Your task to perform on an android device: choose inbox layout in the gmail app Image 0: 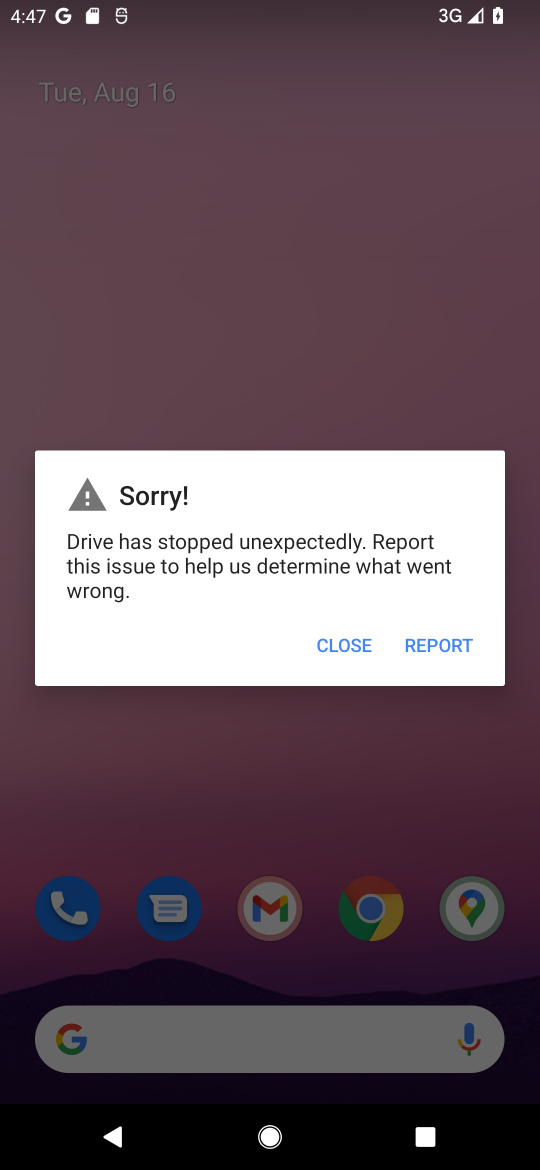
Step 0: click (350, 635)
Your task to perform on an android device: choose inbox layout in the gmail app Image 1: 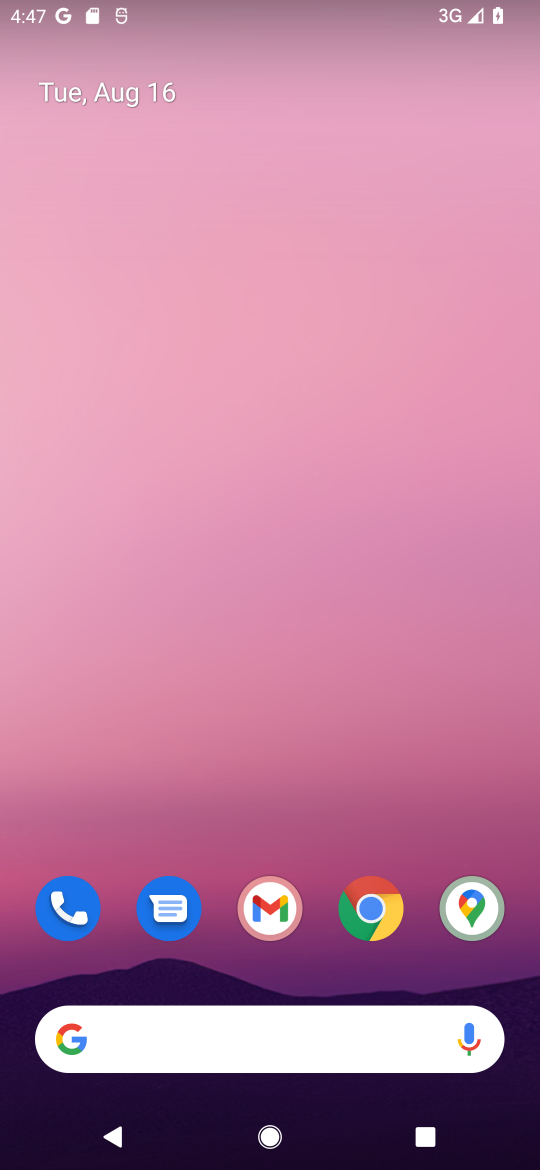
Step 1: click (272, 913)
Your task to perform on an android device: choose inbox layout in the gmail app Image 2: 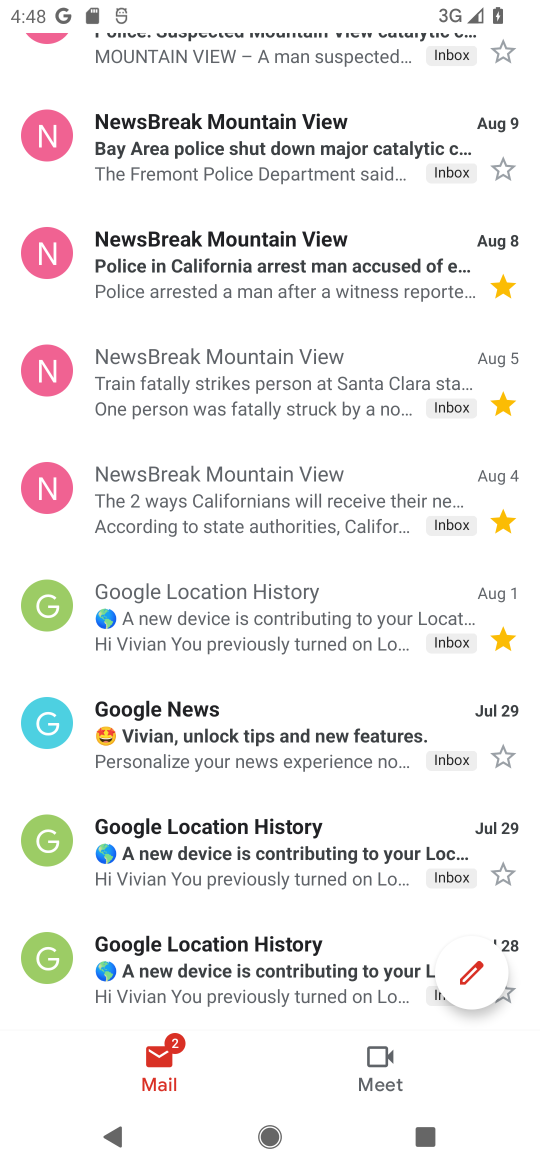
Step 2: drag from (184, 217) to (249, 975)
Your task to perform on an android device: choose inbox layout in the gmail app Image 3: 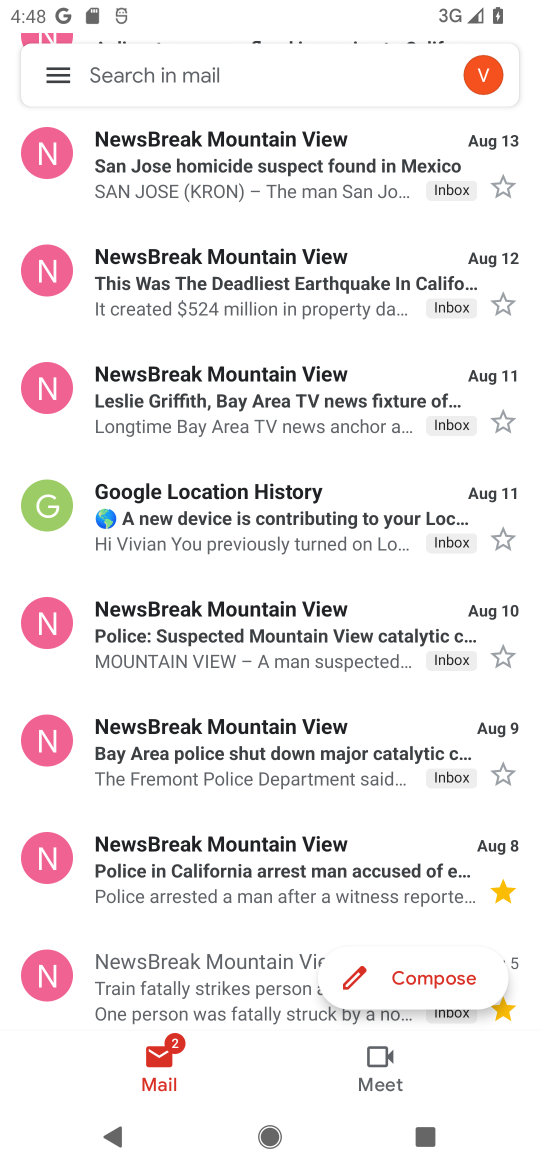
Step 3: click (53, 79)
Your task to perform on an android device: choose inbox layout in the gmail app Image 4: 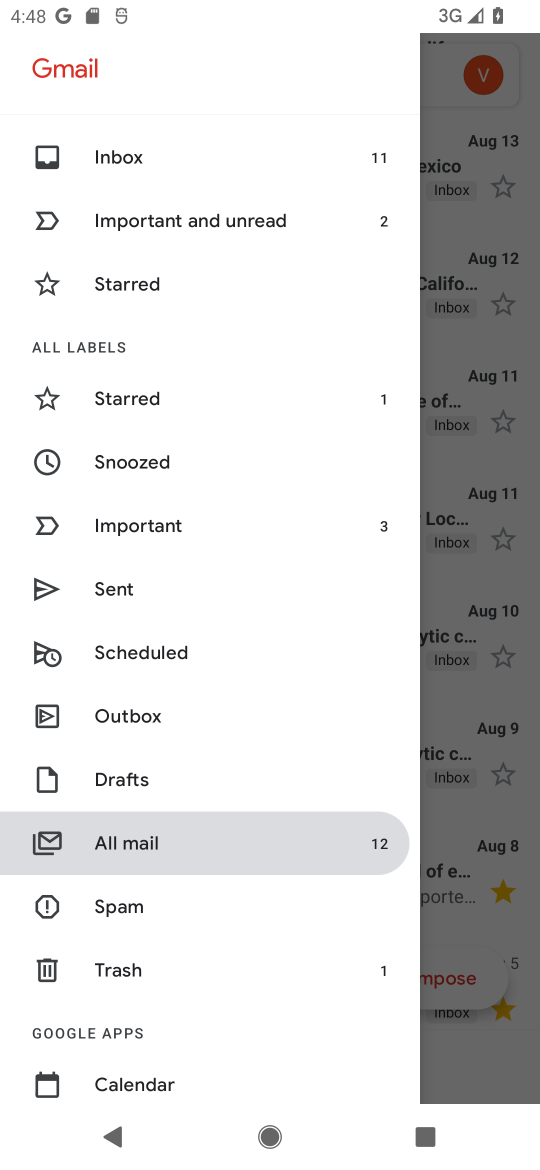
Step 4: drag from (168, 1032) to (308, 27)
Your task to perform on an android device: choose inbox layout in the gmail app Image 5: 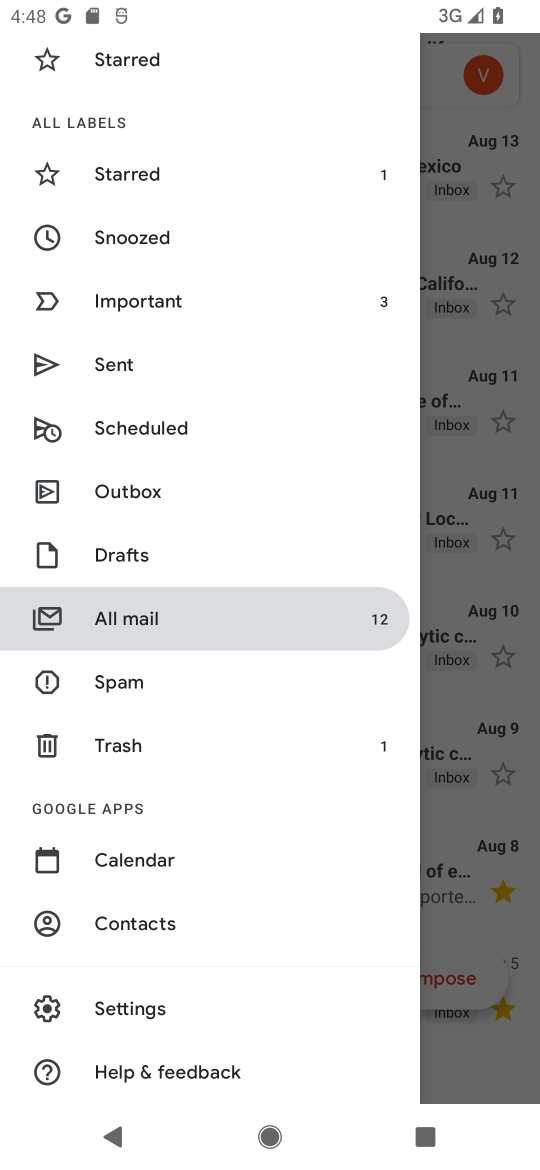
Step 5: click (143, 998)
Your task to perform on an android device: choose inbox layout in the gmail app Image 6: 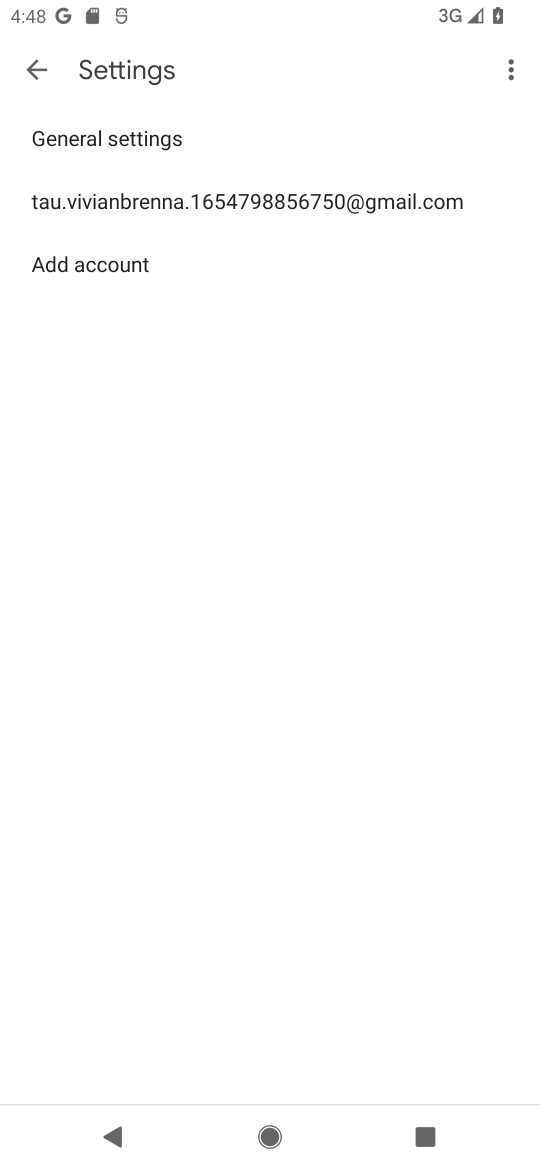
Step 6: click (181, 185)
Your task to perform on an android device: choose inbox layout in the gmail app Image 7: 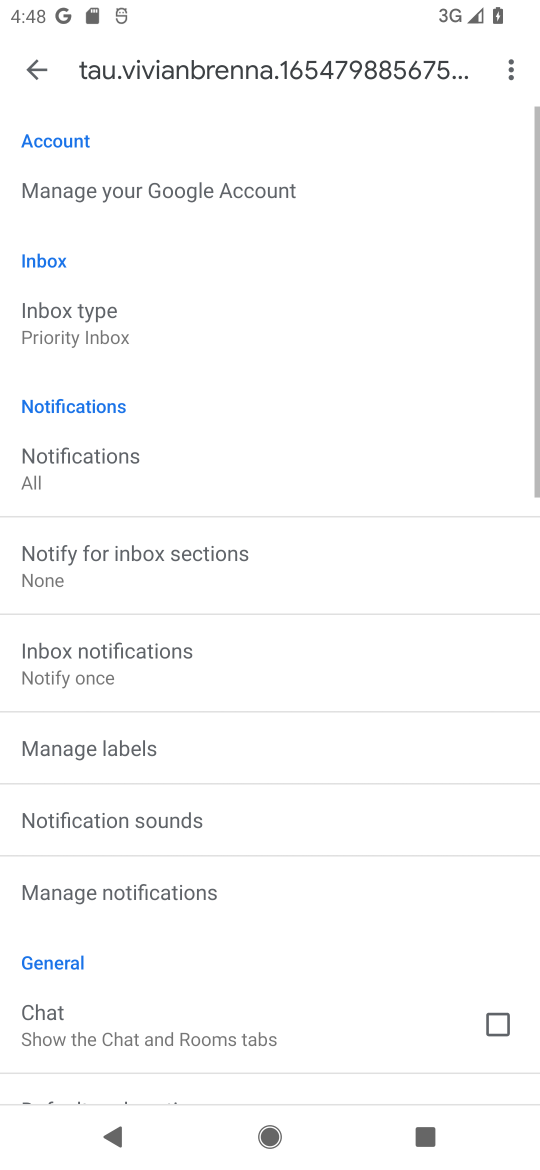
Step 7: click (101, 326)
Your task to perform on an android device: choose inbox layout in the gmail app Image 8: 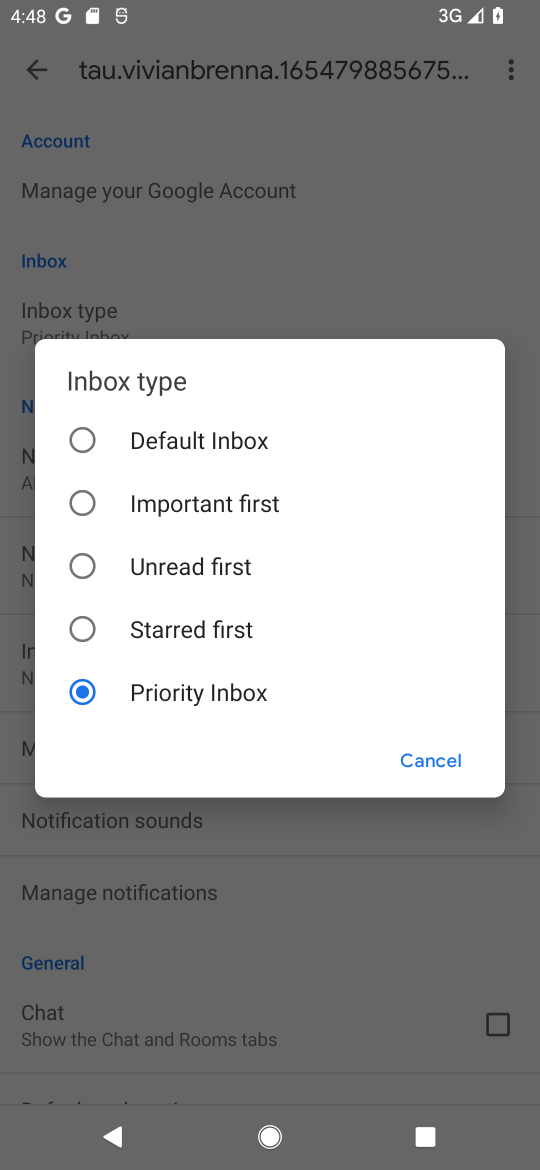
Step 8: click (78, 445)
Your task to perform on an android device: choose inbox layout in the gmail app Image 9: 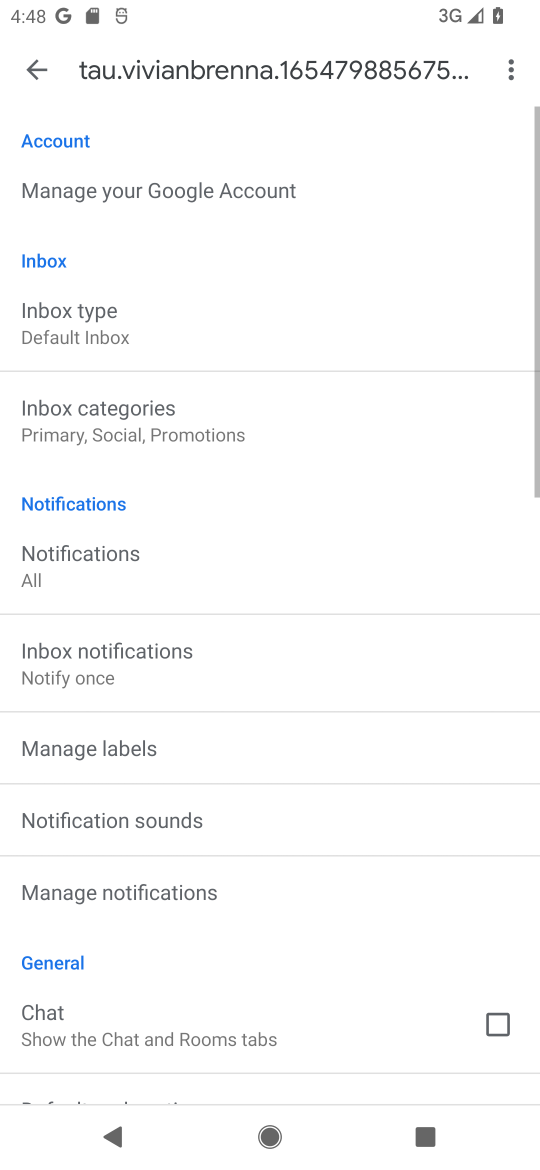
Step 9: task complete